Your task to perform on an android device: change notifications settings Image 0: 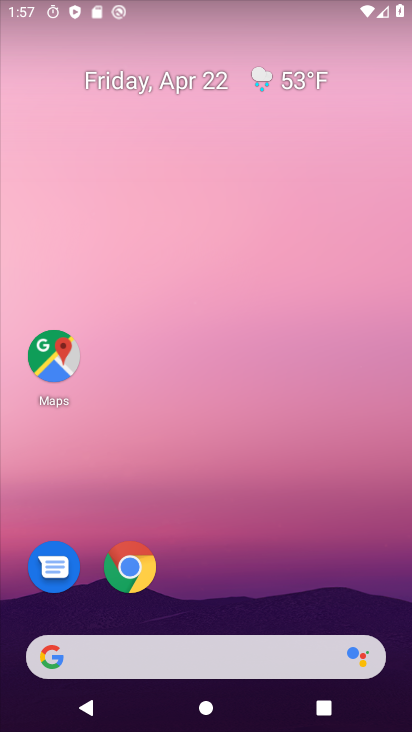
Step 0: drag from (332, 568) to (349, 91)
Your task to perform on an android device: change notifications settings Image 1: 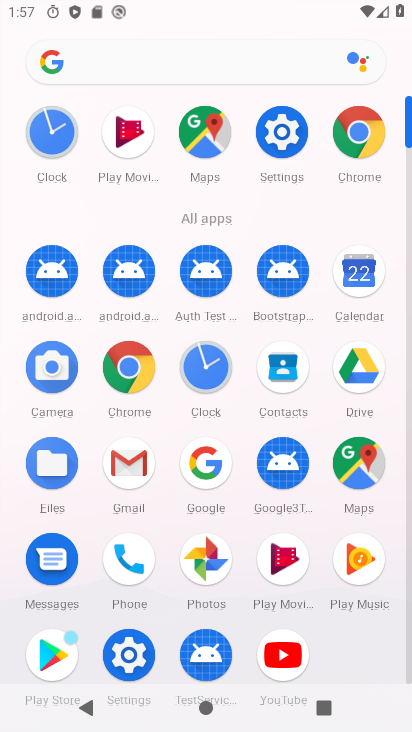
Step 1: click (287, 134)
Your task to perform on an android device: change notifications settings Image 2: 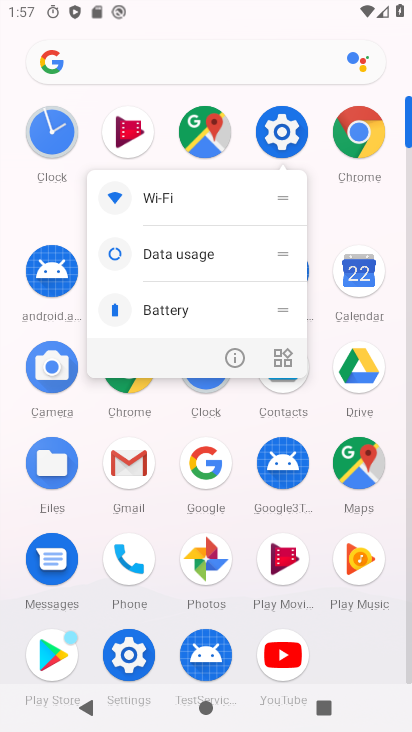
Step 2: click (287, 132)
Your task to perform on an android device: change notifications settings Image 3: 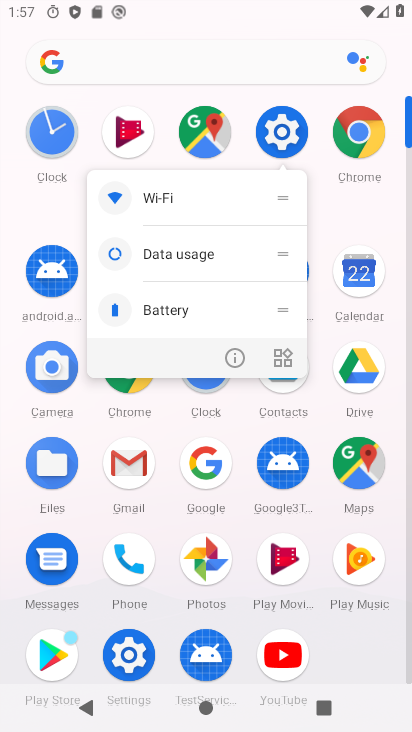
Step 3: click (287, 130)
Your task to perform on an android device: change notifications settings Image 4: 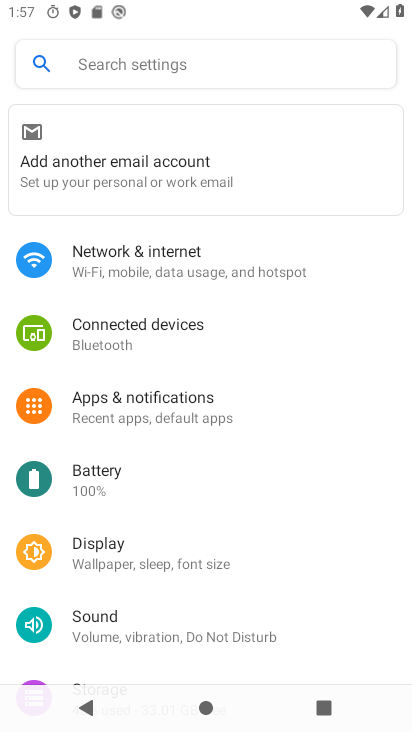
Step 4: click (175, 400)
Your task to perform on an android device: change notifications settings Image 5: 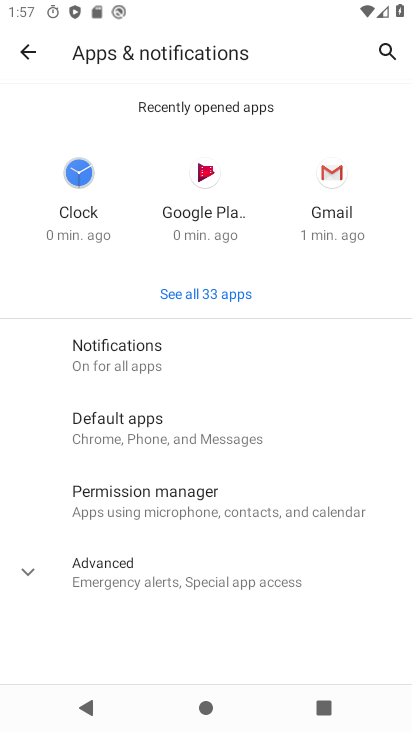
Step 5: click (158, 347)
Your task to perform on an android device: change notifications settings Image 6: 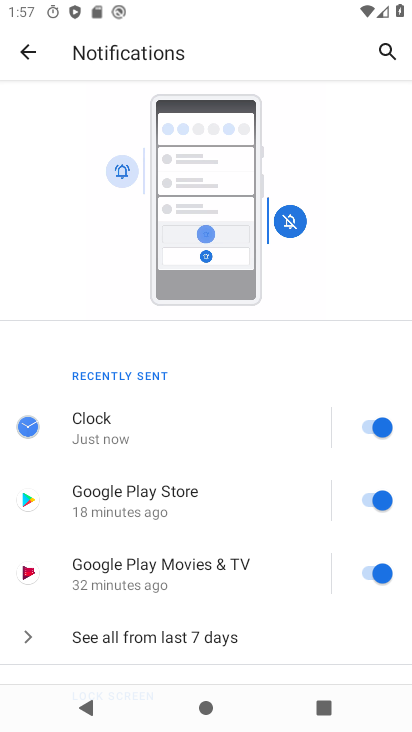
Step 6: click (223, 638)
Your task to perform on an android device: change notifications settings Image 7: 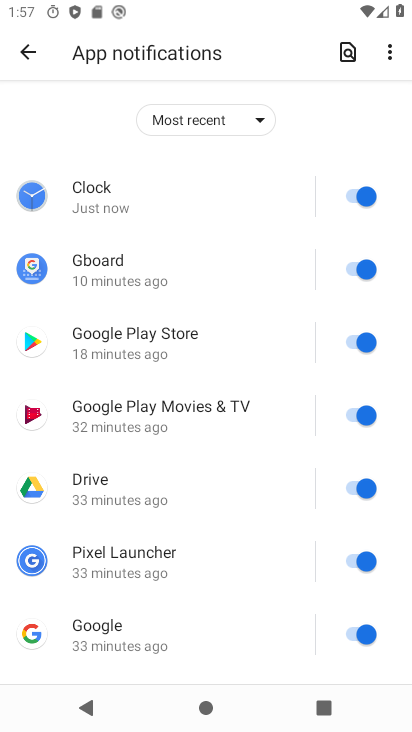
Step 7: click (355, 197)
Your task to perform on an android device: change notifications settings Image 8: 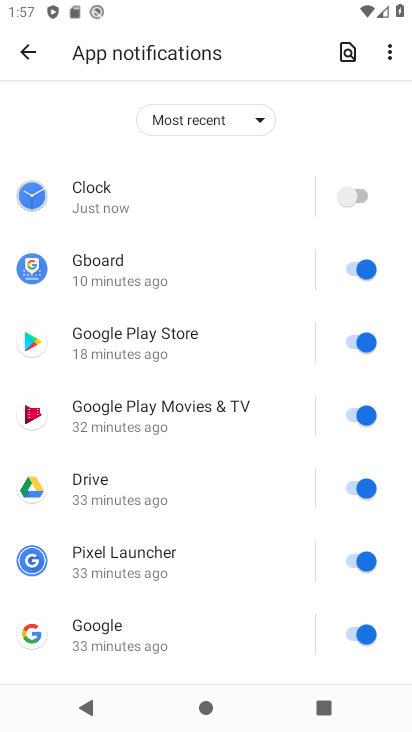
Step 8: click (355, 266)
Your task to perform on an android device: change notifications settings Image 9: 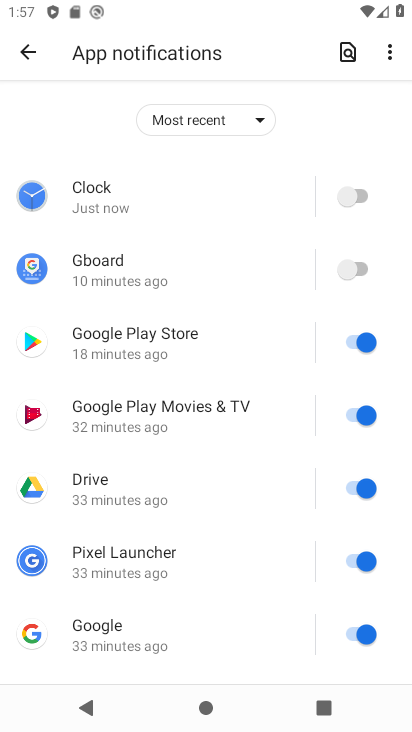
Step 9: click (354, 334)
Your task to perform on an android device: change notifications settings Image 10: 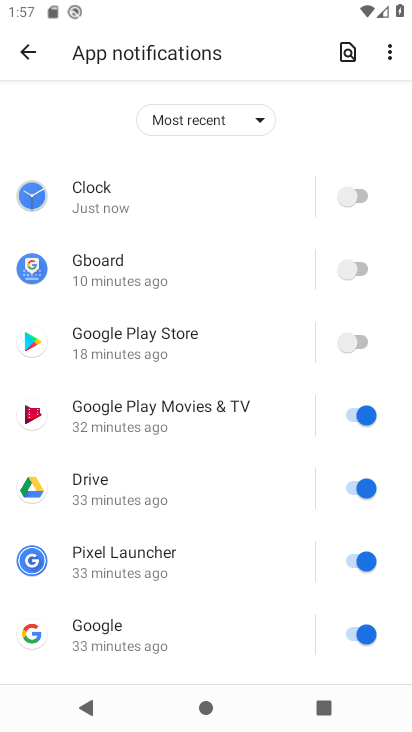
Step 10: click (351, 409)
Your task to perform on an android device: change notifications settings Image 11: 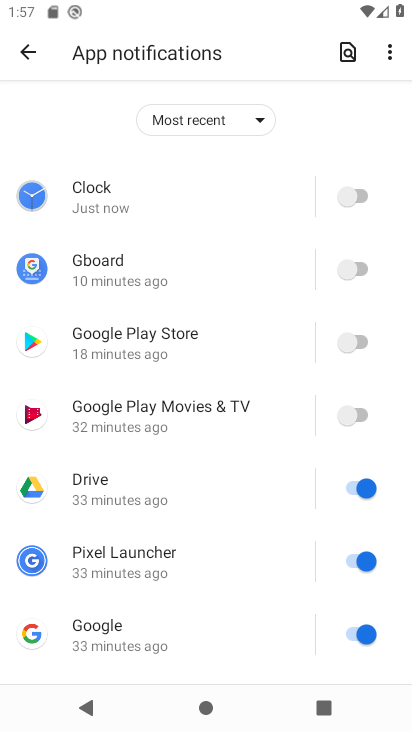
Step 11: click (357, 495)
Your task to perform on an android device: change notifications settings Image 12: 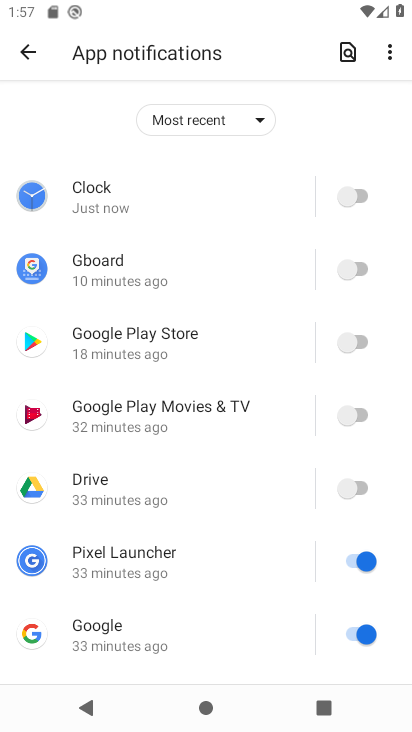
Step 12: click (356, 559)
Your task to perform on an android device: change notifications settings Image 13: 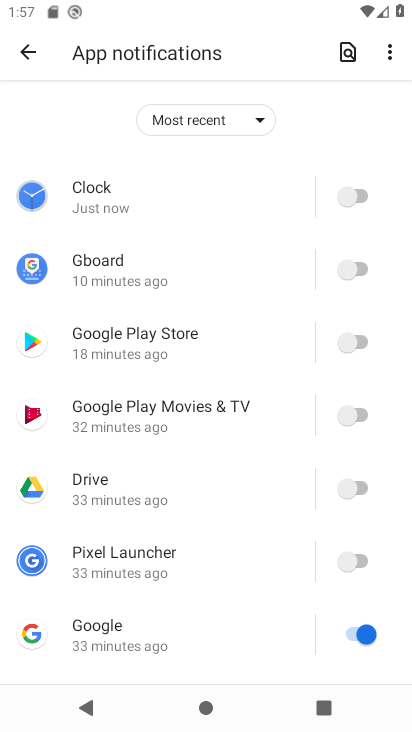
Step 13: click (356, 624)
Your task to perform on an android device: change notifications settings Image 14: 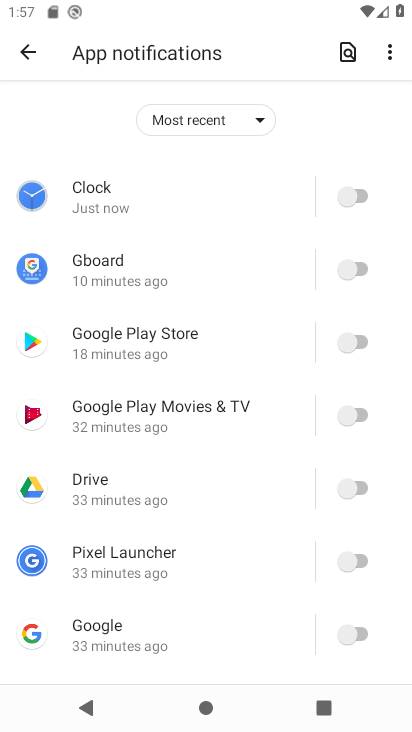
Step 14: task complete